Your task to perform on an android device: open app "Google Chat" (install if not already installed) Image 0: 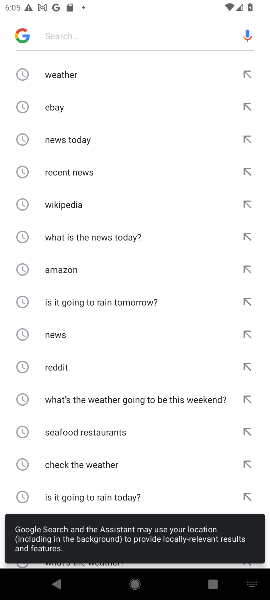
Step 0: press home button
Your task to perform on an android device: open app "Google Chat" (install if not already installed) Image 1: 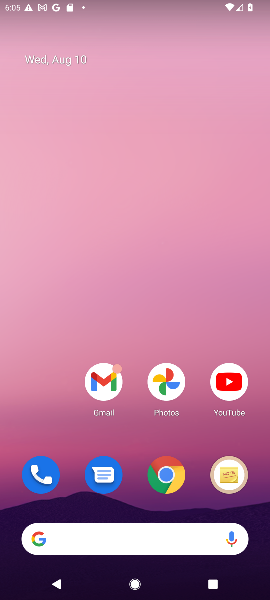
Step 1: drag from (144, 534) to (171, 229)
Your task to perform on an android device: open app "Google Chat" (install if not already installed) Image 2: 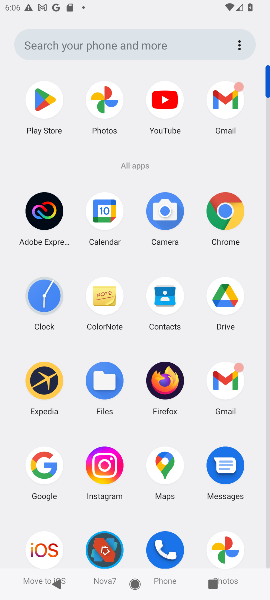
Step 2: click (44, 103)
Your task to perform on an android device: open app "Google Chat" (install if not already installed) Image 3: 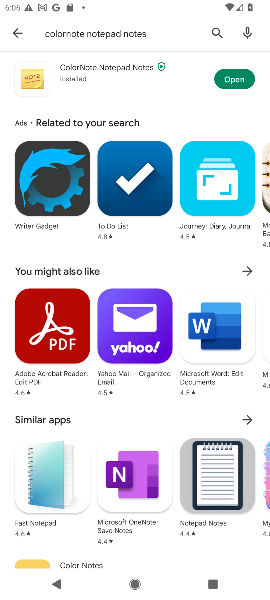
Step 3: click (210, 34)
Your task to perform on an android device: open app "Google Chat" (install if not already installed) Image 4: 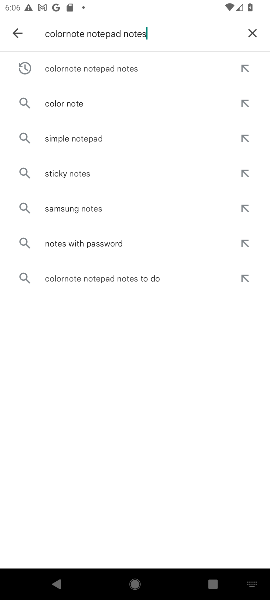
Step 4: click (249, 34)
Your task to perform on an android device: open app "Google Chat" (install if not already installed) Image 5: 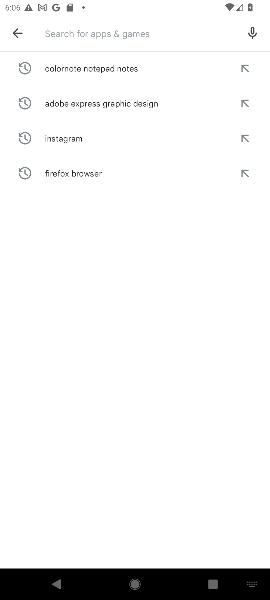
Step 5: type "Google Chat"
Your task to perform on an android device: open app "Google Chat" (install if not already installed) Image 6: 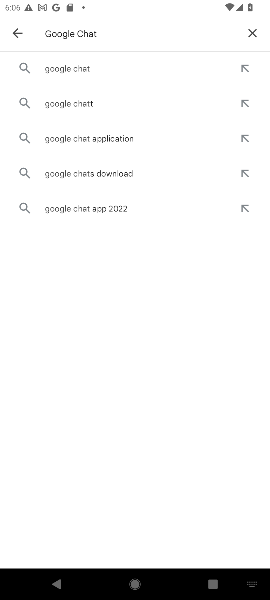
Step 6: click (60, 64)
Your task to perform on an android device: open app "Google Chat" (install if not already installed) Image 7: 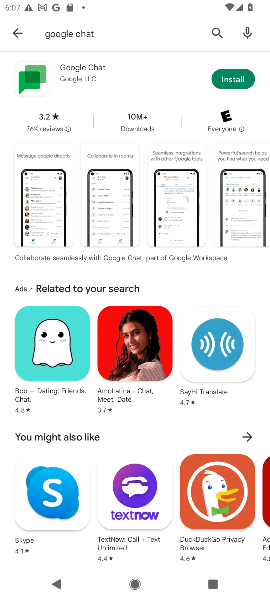
Step 7: click (239, 81)
Your task to perform on an android device: open app "Google Chat" (install if not already installed) Image 8: 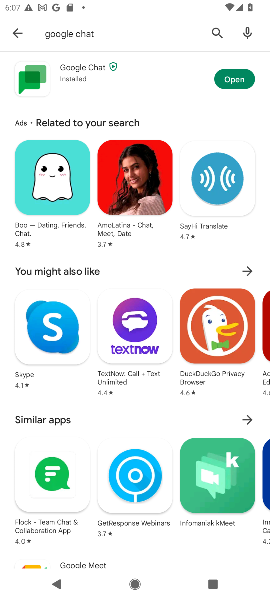
Step 8: click (242, 78)
Your task to perform on an android device: open app "Google Chat" (install if not already installed) Image 9: 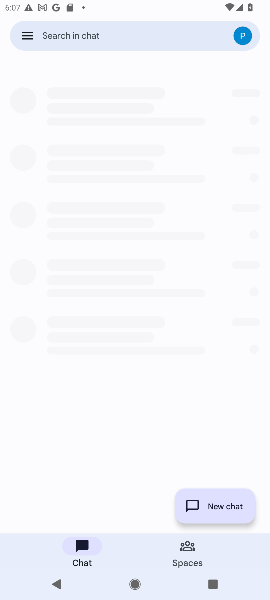
Step 9: task complete